Your task to perform on an android device: Open Google Chrome Image 0: 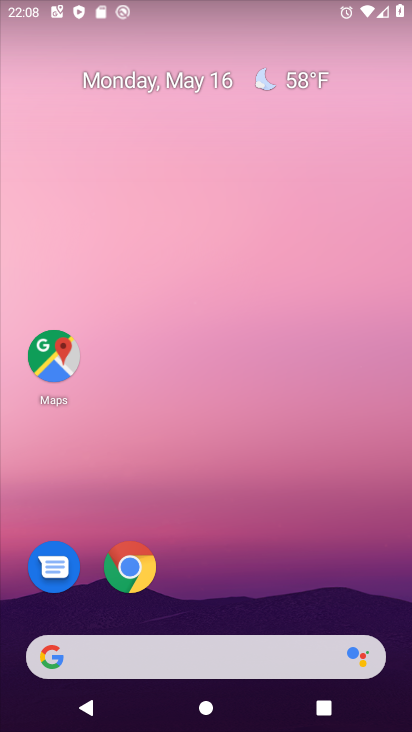
Step 0: drag from (218, 536) to (212, 238)
Your task to perform on an android device: Open Google Chrome Image 1: 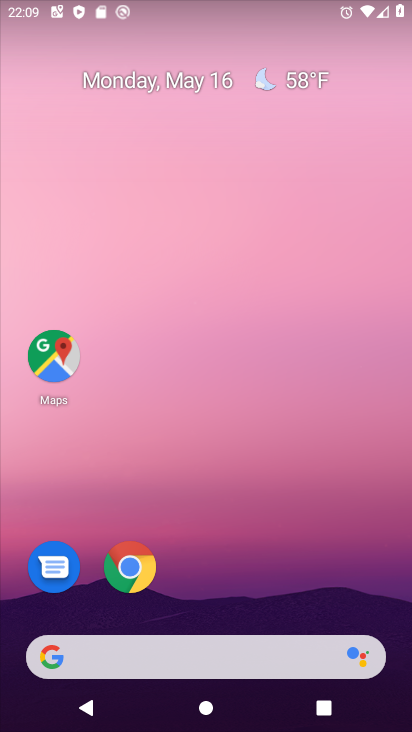
Step 1: drag from (218, 570) to (276, 160)
Your task to perform on an android device: Open Google Chrome Image 2: 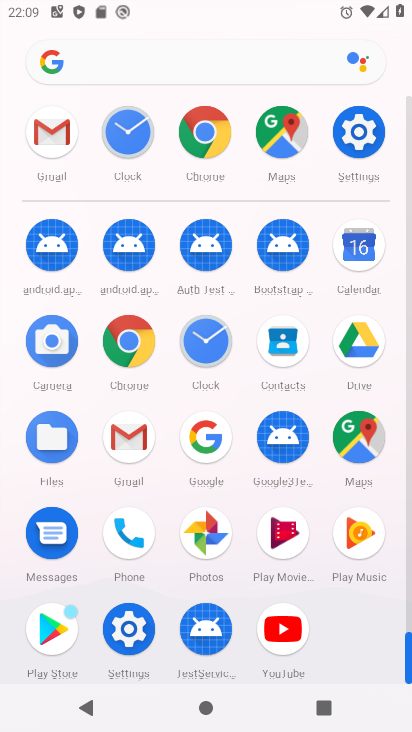
Step 2: click (200, 428)
Your task to perform on an android device: Open Google Chrome Image 3: 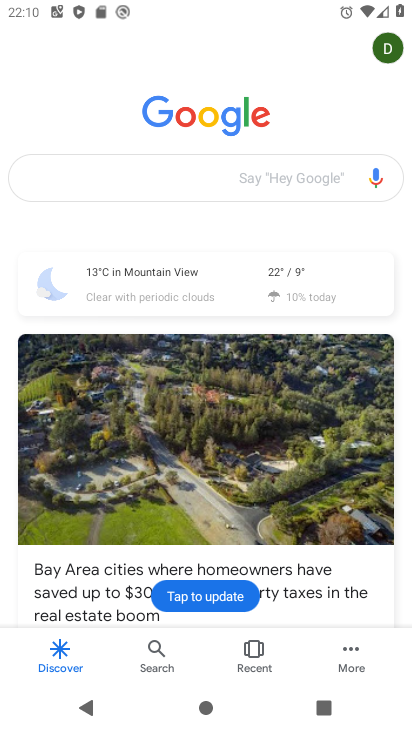
Step 3: task complete